Your task to perform on an android device: turn on the 12-hour format for clock Image 0: 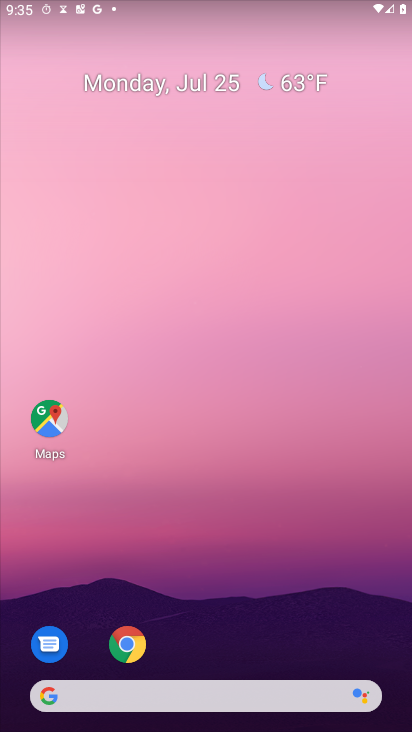
Step 0: drag from (219, 611) to (163, 175)
Your task to perform on an android device: turn on the 12-hour format for clock Image 1: 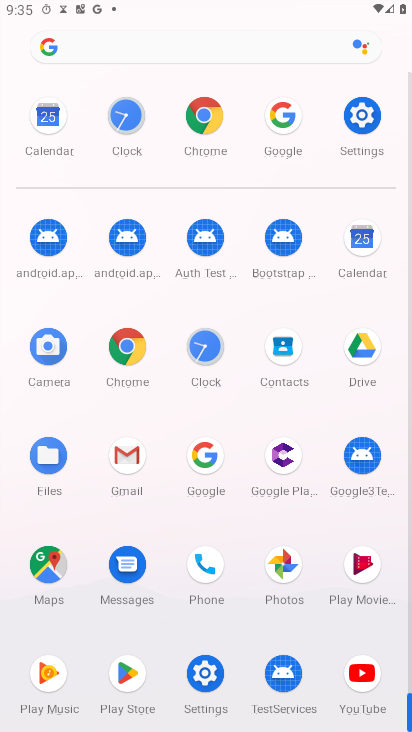
Step 1: click (205, 339)
Your task to perform on an android device: turn on the 12-hour format for clock Image 2: 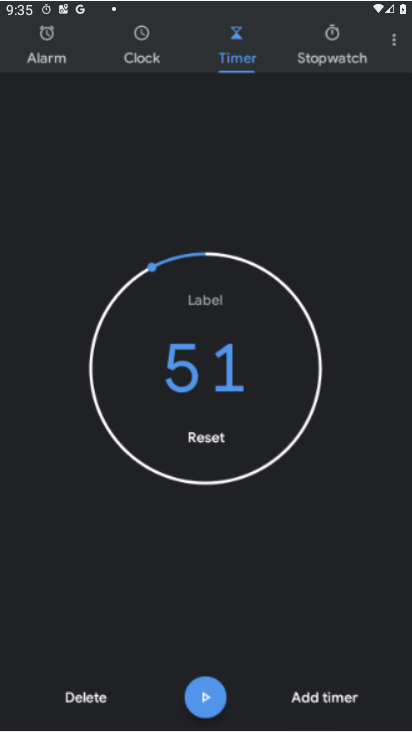
Step 2: click (205, 343)
Your task to perform on an android device: turn on the 12-hour format for clock Image 3: 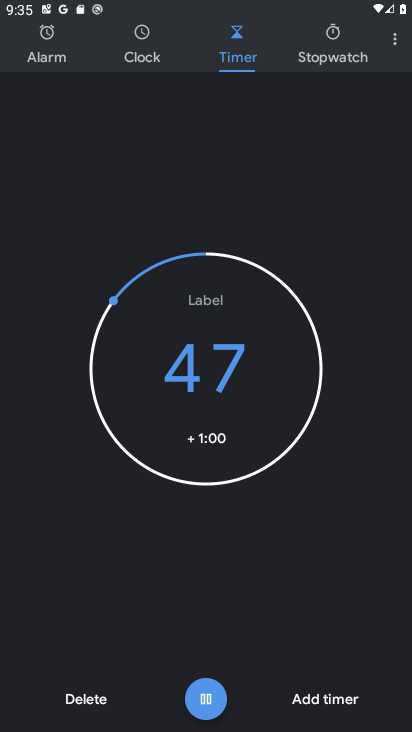
Step 3: click (208, 699)
Your task to perform on an android device: turn on the 12-hour format for clock Image 4: 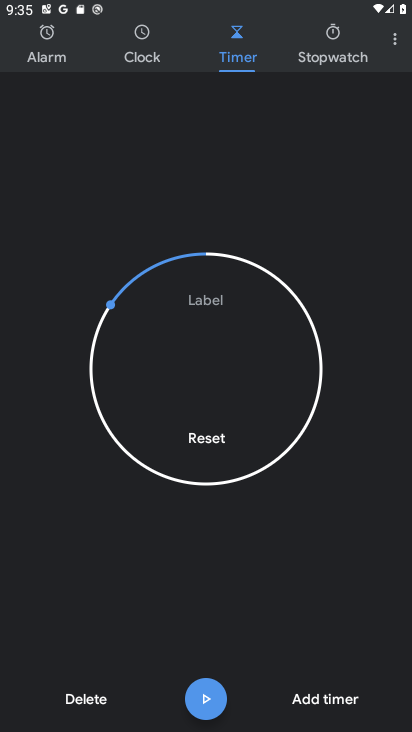
Step 4: click (387, 36)
Your task to perform on an android device: turn on the 12-hour format for clock Image 5: 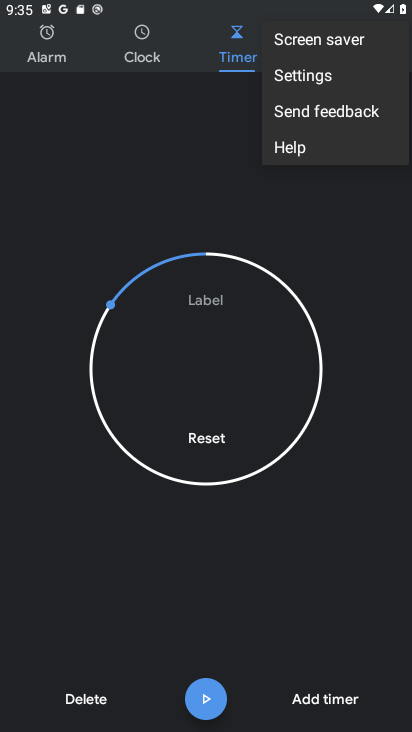
Step 5: click (319, 69)
Your task to perform on an android device: turn on the 12-hour format for clock Image 6: 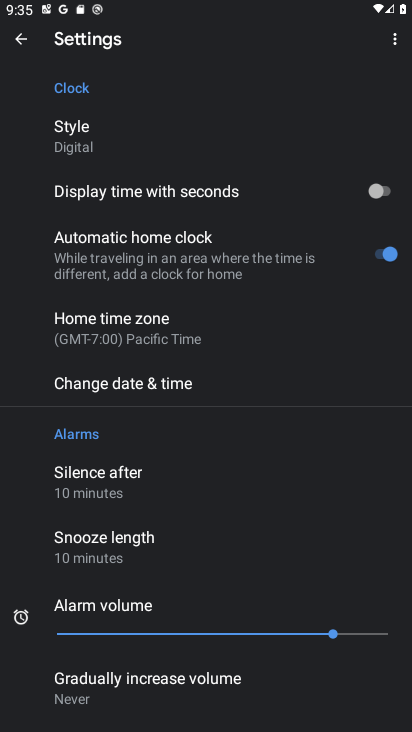
Step 6: drag from (142, 544) to (137, 95)
Your task to perform on an android device: turn on the 12-hour format for clock Image 7: 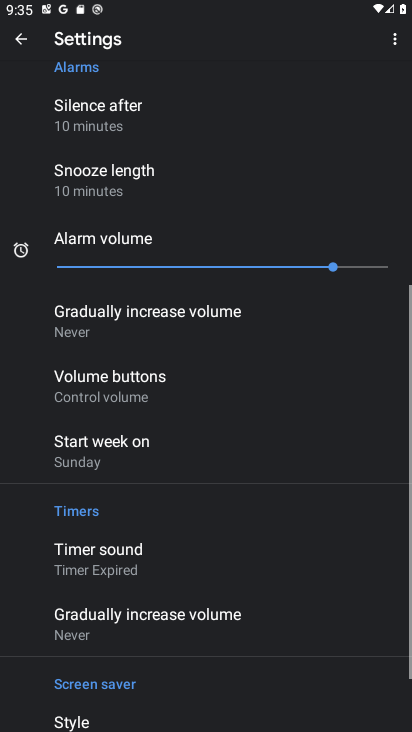
Step 7: drag from (233, 448) to (192, 111)
Your task to perform on an android device: turn on the 12-hour format for clock Image 8: 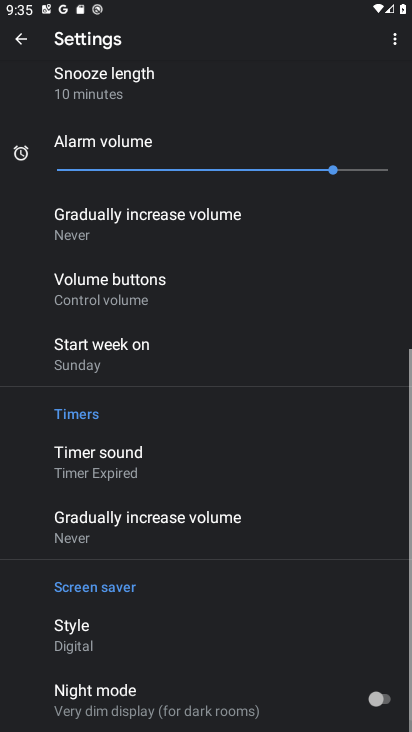
Step 8: drag from (229, 325) to (222, 210)
Your task to perform on an android device: turn on the 12-hour format for clock Image 9: 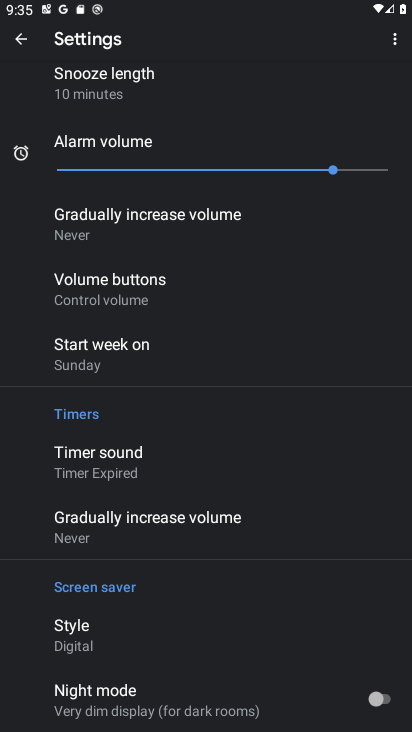
Step 9: drag from (154, 220) to (154, 574)
Your task to perform on an android device: turn on the 12-hour format for clock Image 10: 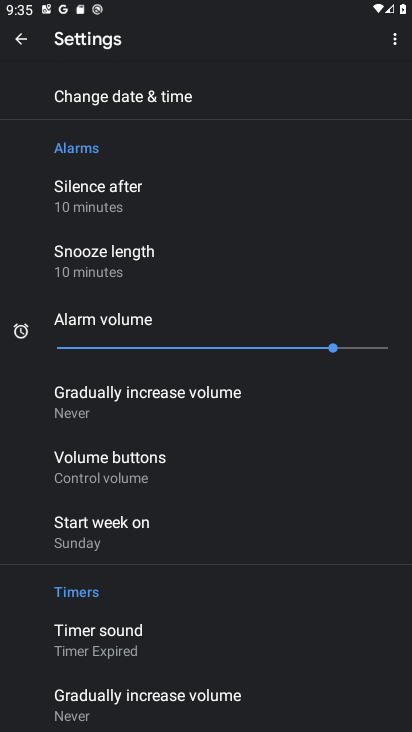
Step 10: click (96, 102)
Your task to perform on an android device: turn on the 12-hour format for clock Image 11: 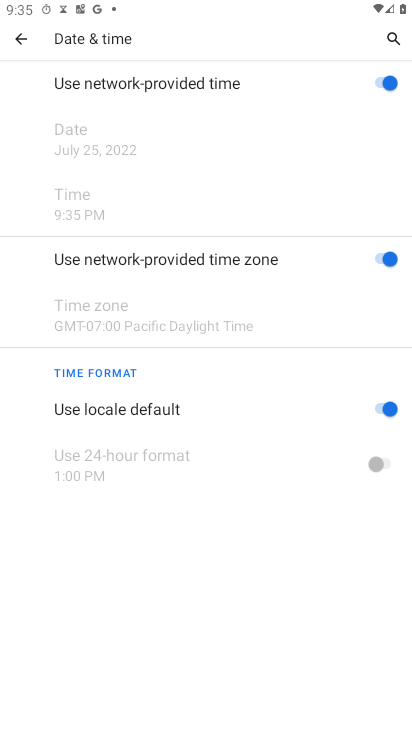
Step 11: task complete